Your task to perform on an android device: set an alarm Image 0: 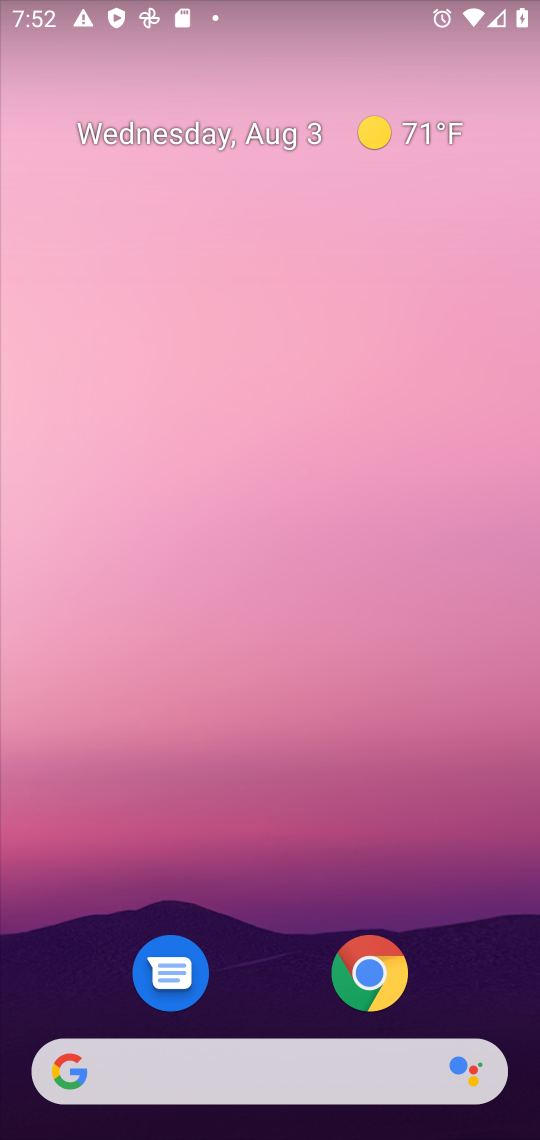
Step 0: drag from (237, 927) to (187, 273)
Your task to perform on an android device: set an alarm Image 1: 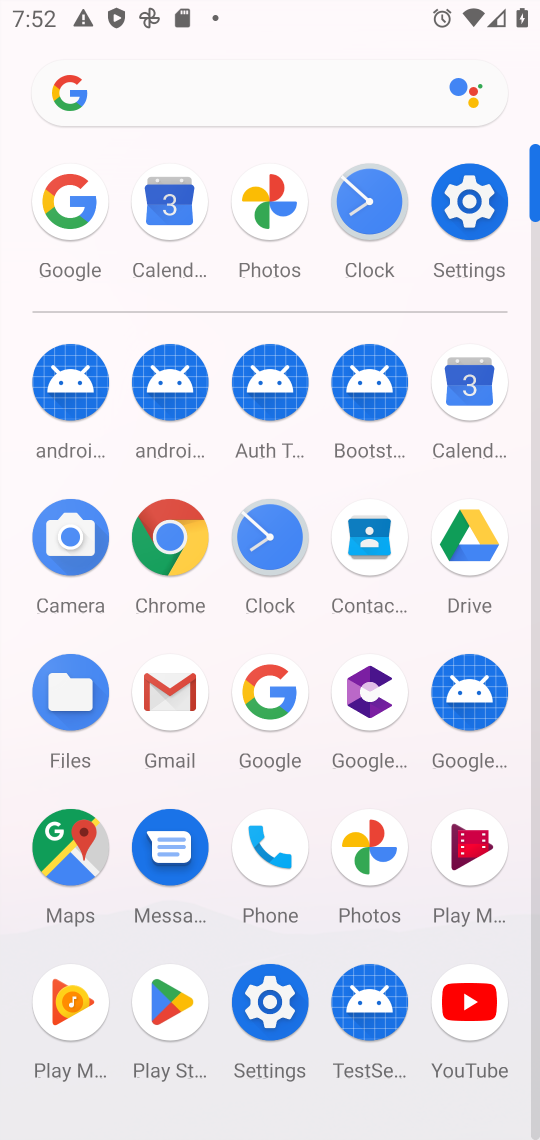
Step 1: click (263, 530)
Your task to perform on an android device: set an alarm Image 2: 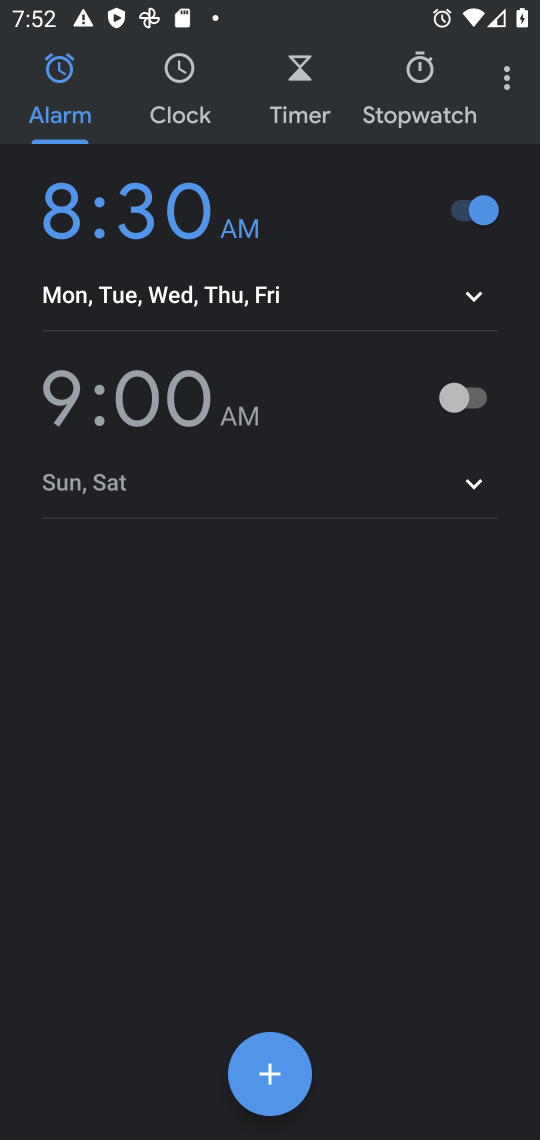
Step 2: click (494, 409)
Your task to perform on an android device: set an alarm Image 3: 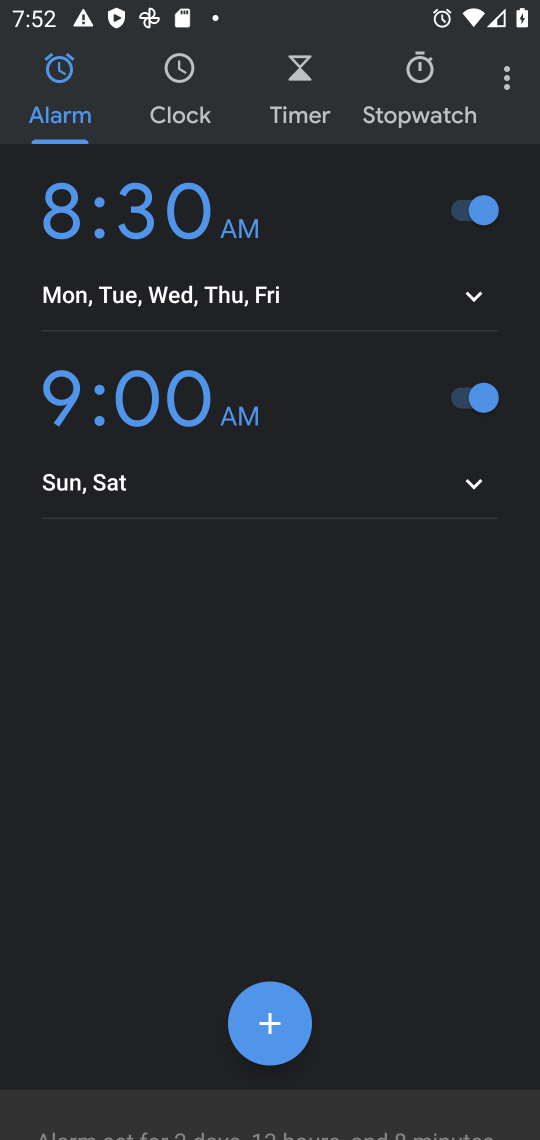
Step 3: task complete